Your task to perform on an android device: Go to ESPN.com Image 0: 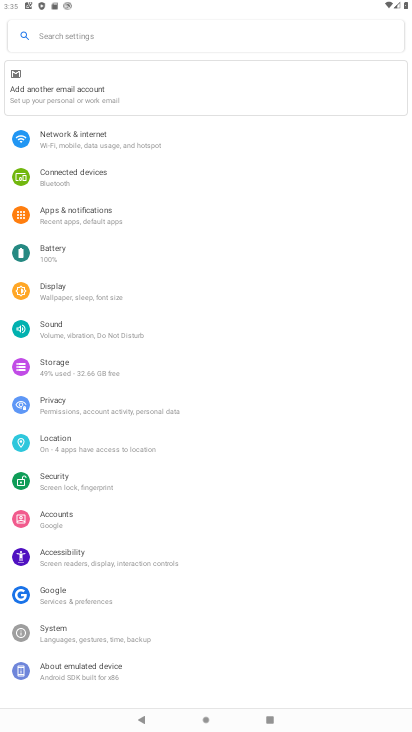
Step 0: press home button
Your task to perform on an android device: Go to ESPN.com Image 1: 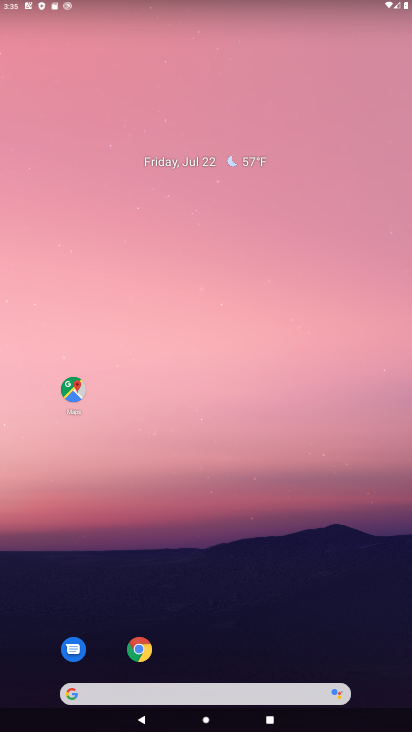
Step 1: click (93, 690)
Your task to perform on an android device: Go to ESPN.com Image 2: 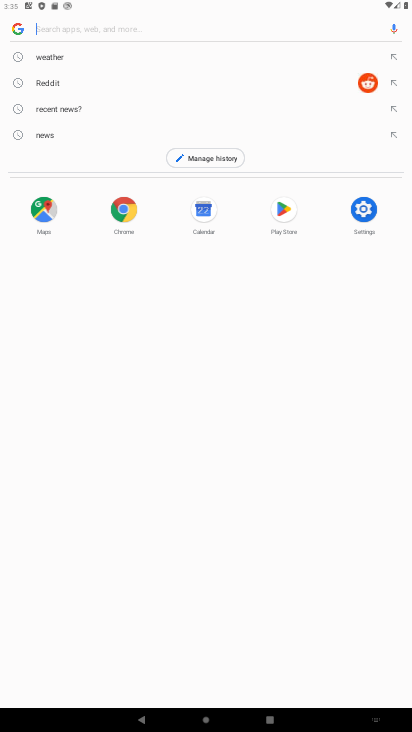
Step 2: type "ESPN.com"
Your task to perform on an android device: Go to ESPN.com Image 3: 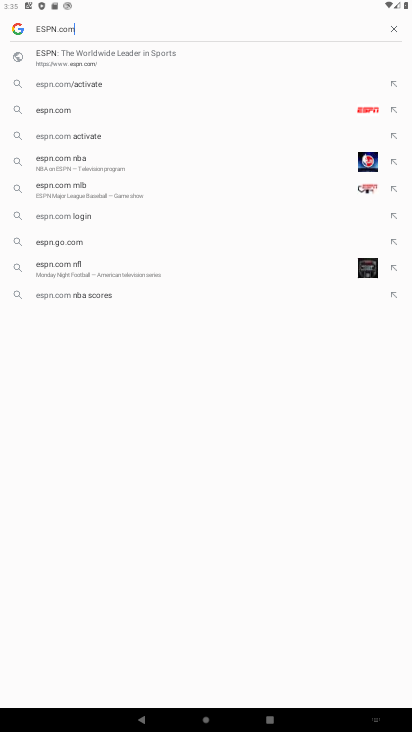
Step 3: type ""
Your task to perform on an android device: Go to ESPN.com Image 4: 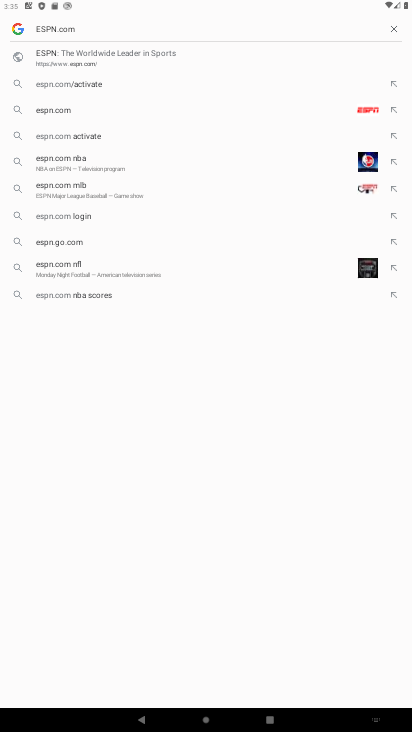
Step 4: type ""
Your task to perform on an android device: Go to ESPN.com Image 5: 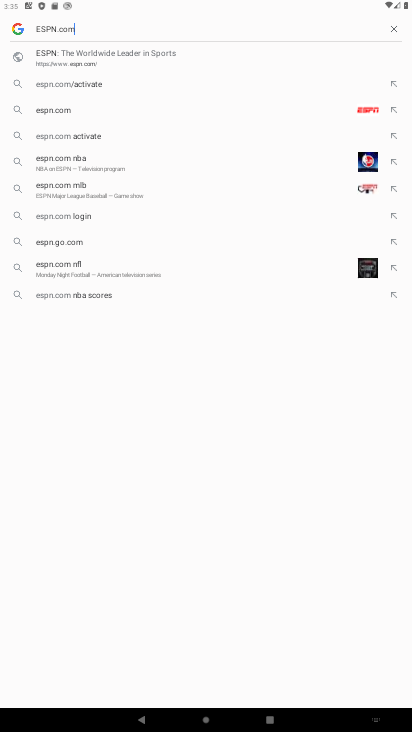
Step 5: task complete